Your task to perform on an android device: What's on my calendar today? Image 0: 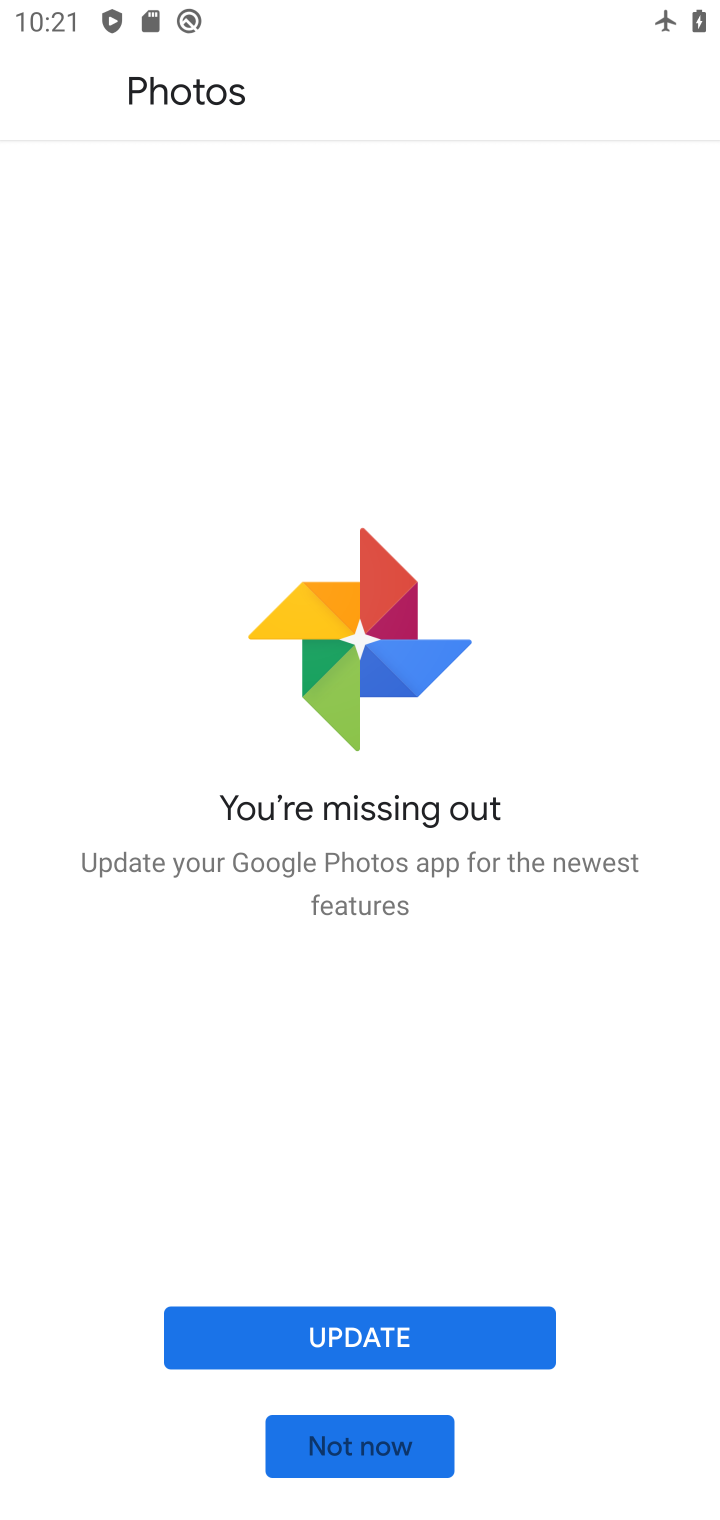
Step 0: press home button
Your task to perform on an android device: What's on my calendar today? Image 1: 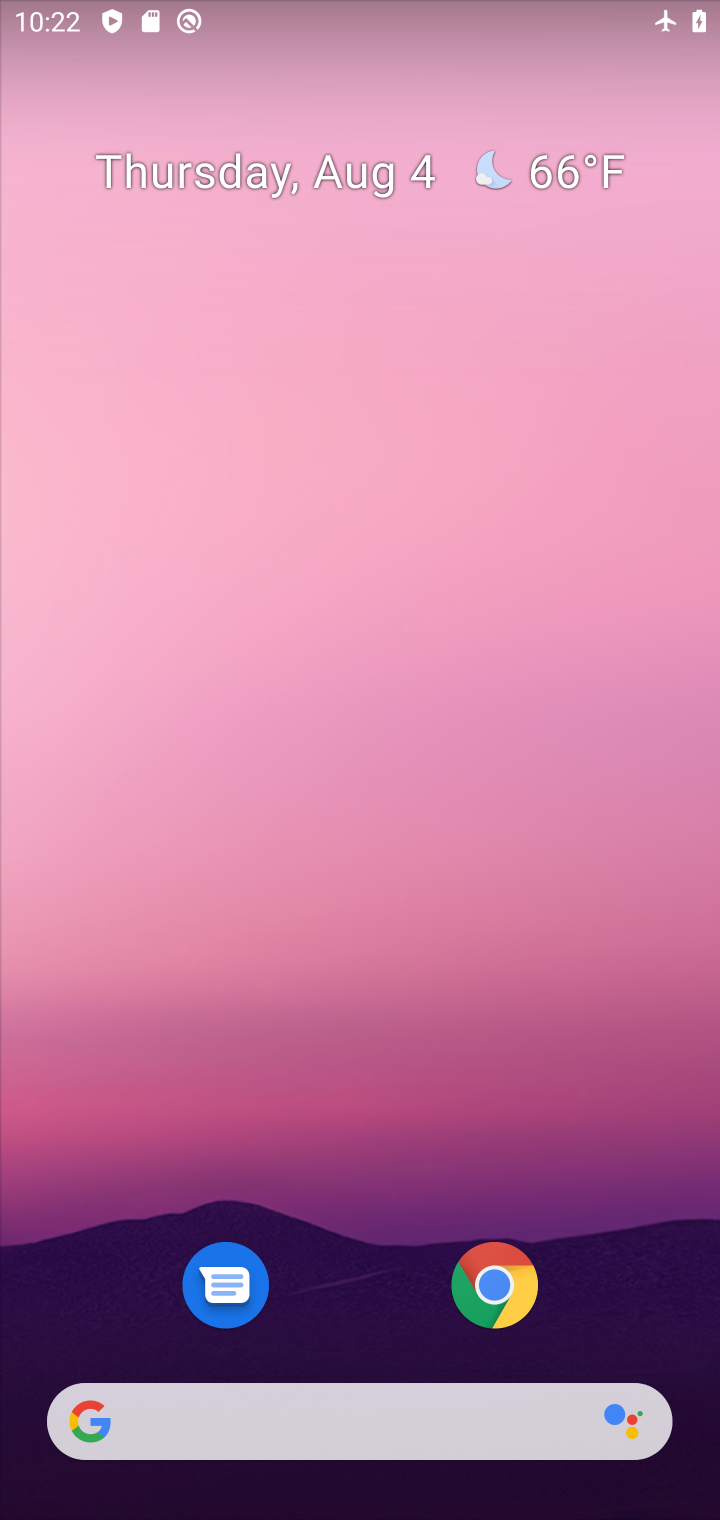
Step 1: drag from (438, 1289) to (462, 68)
Your task to perform on an android device: What's on my calendar today? Image 2: 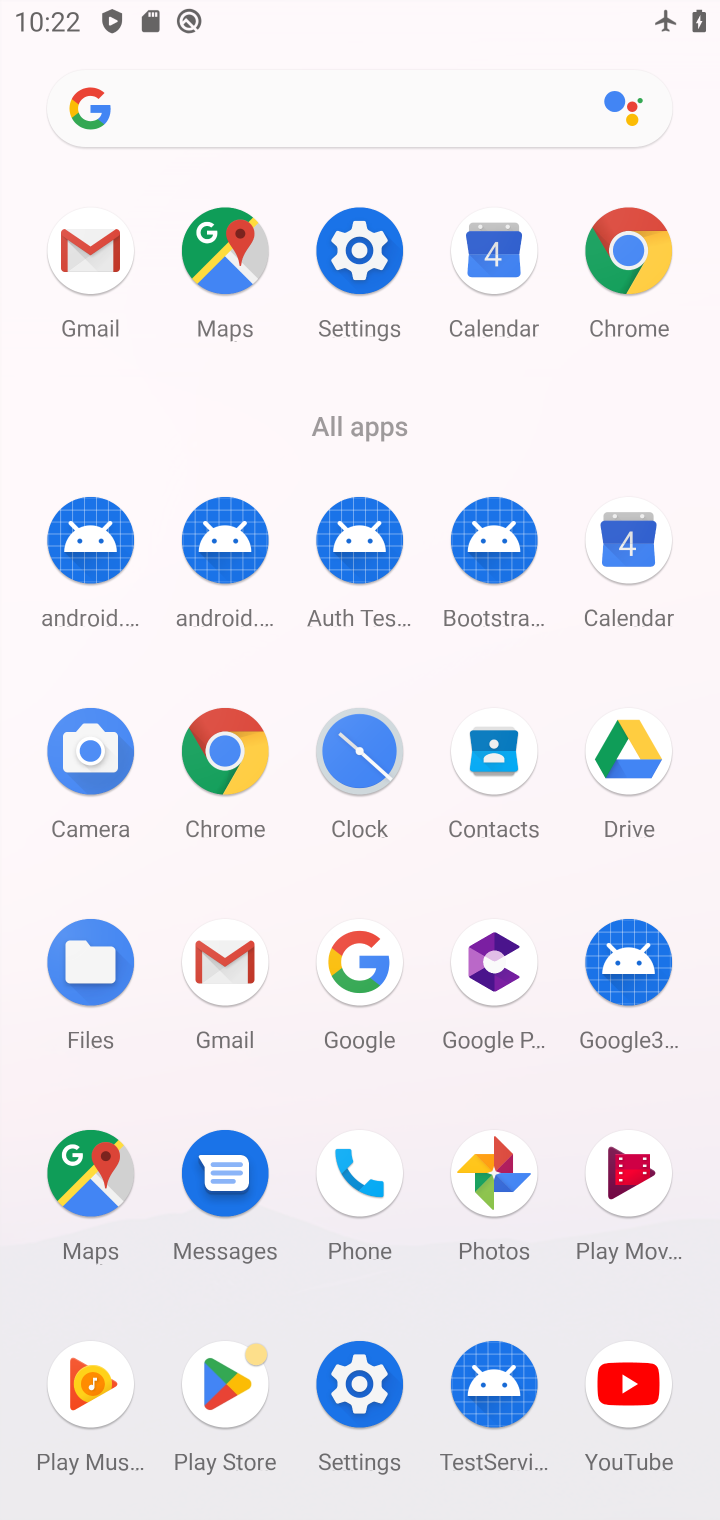
Step 2: click (641, 542)
Your task to perform on an android device: What's on my calendar today? Image 3: 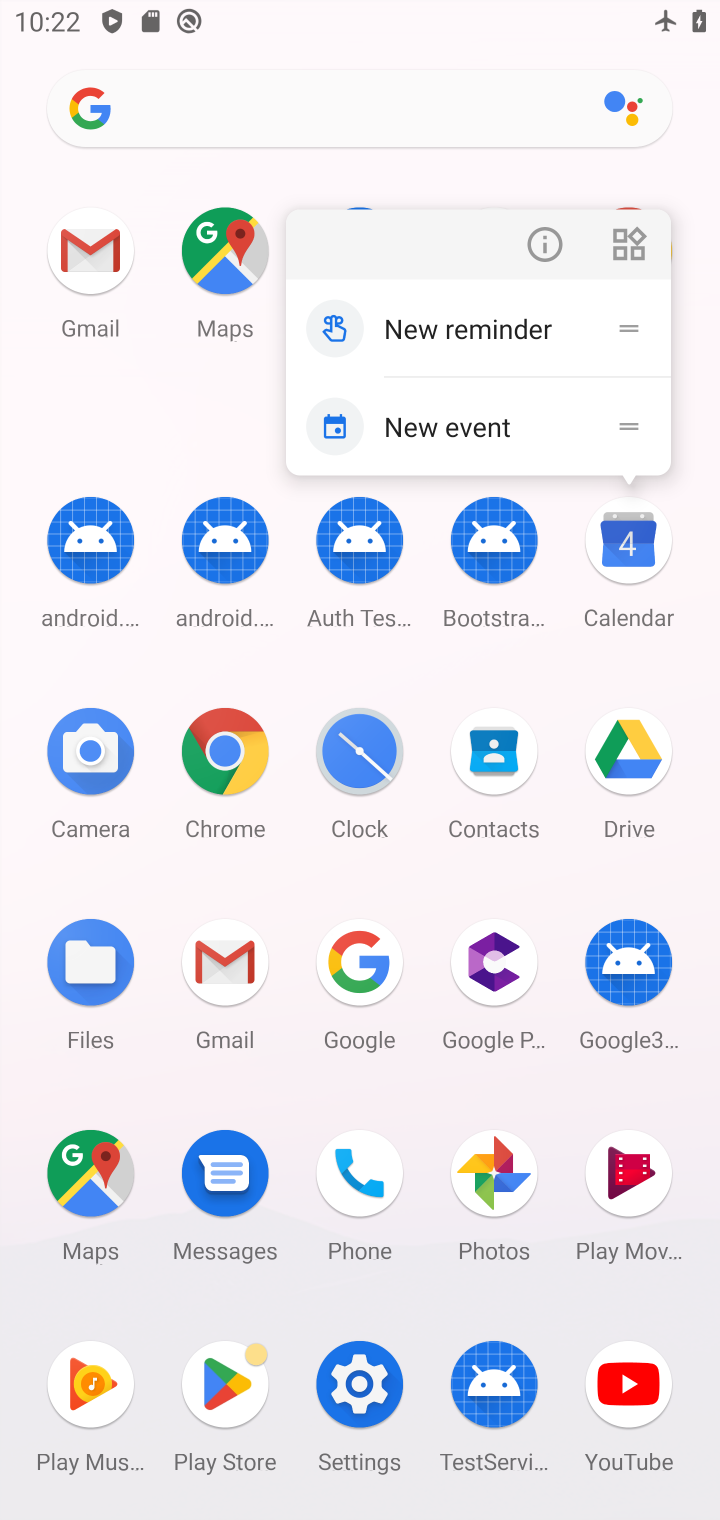
Step 3: click (643, 532)
Your task to perform on an android device: What's on my calendar today? Image 4: 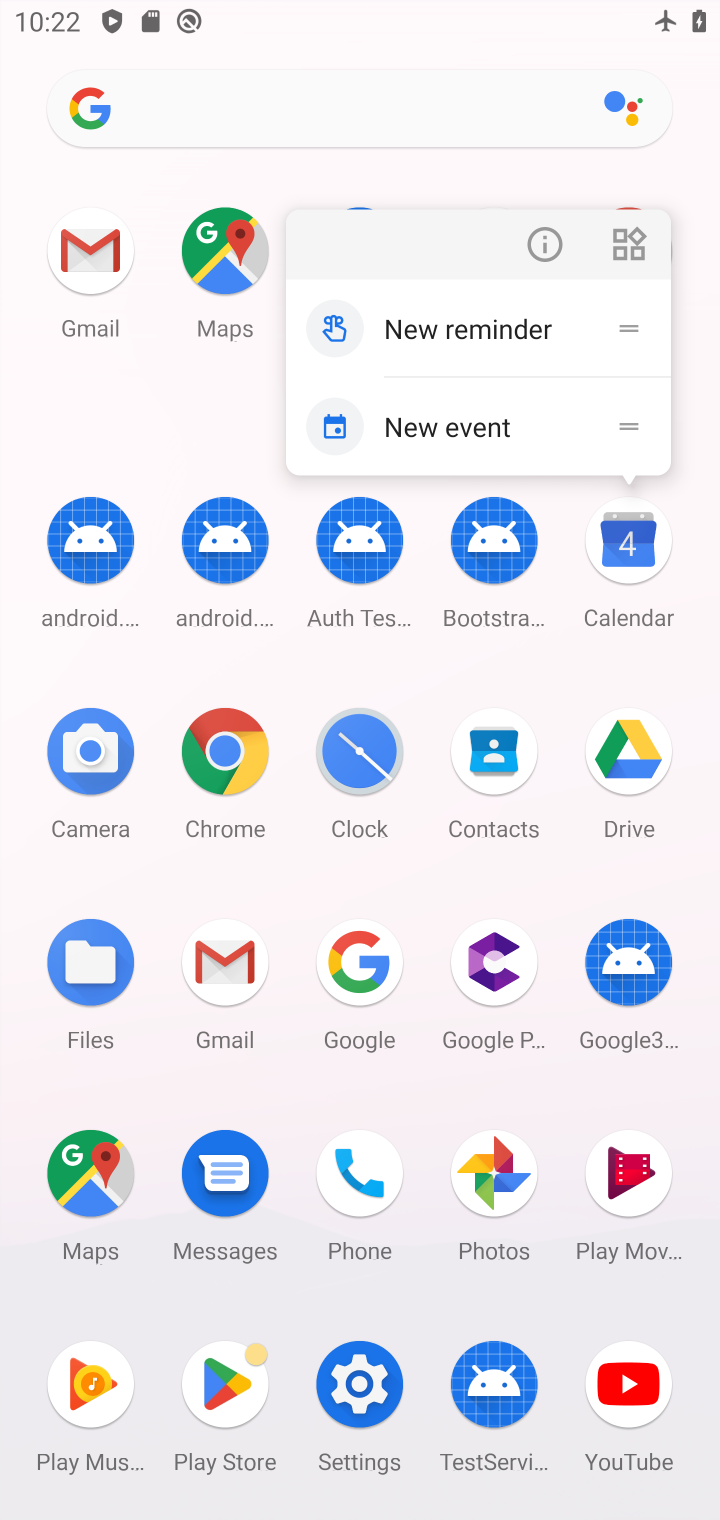
Step 4: click (643, 532)
Your task to perform on an android device: What's on my calendar today? Image 5: 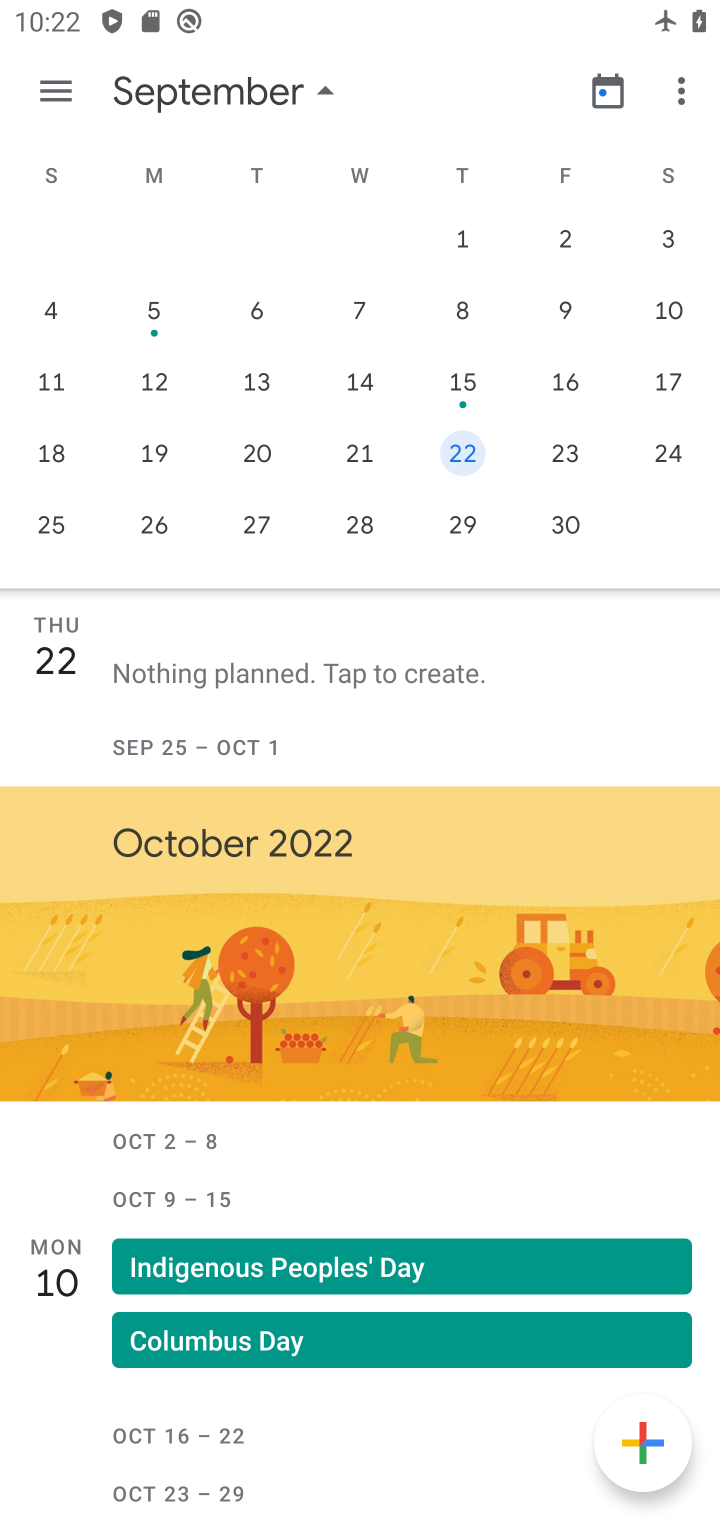
Step 5: drag from (174, 249) to (697, 403)
Your task to perform on an android device: What's on my calendar today? Image 6: 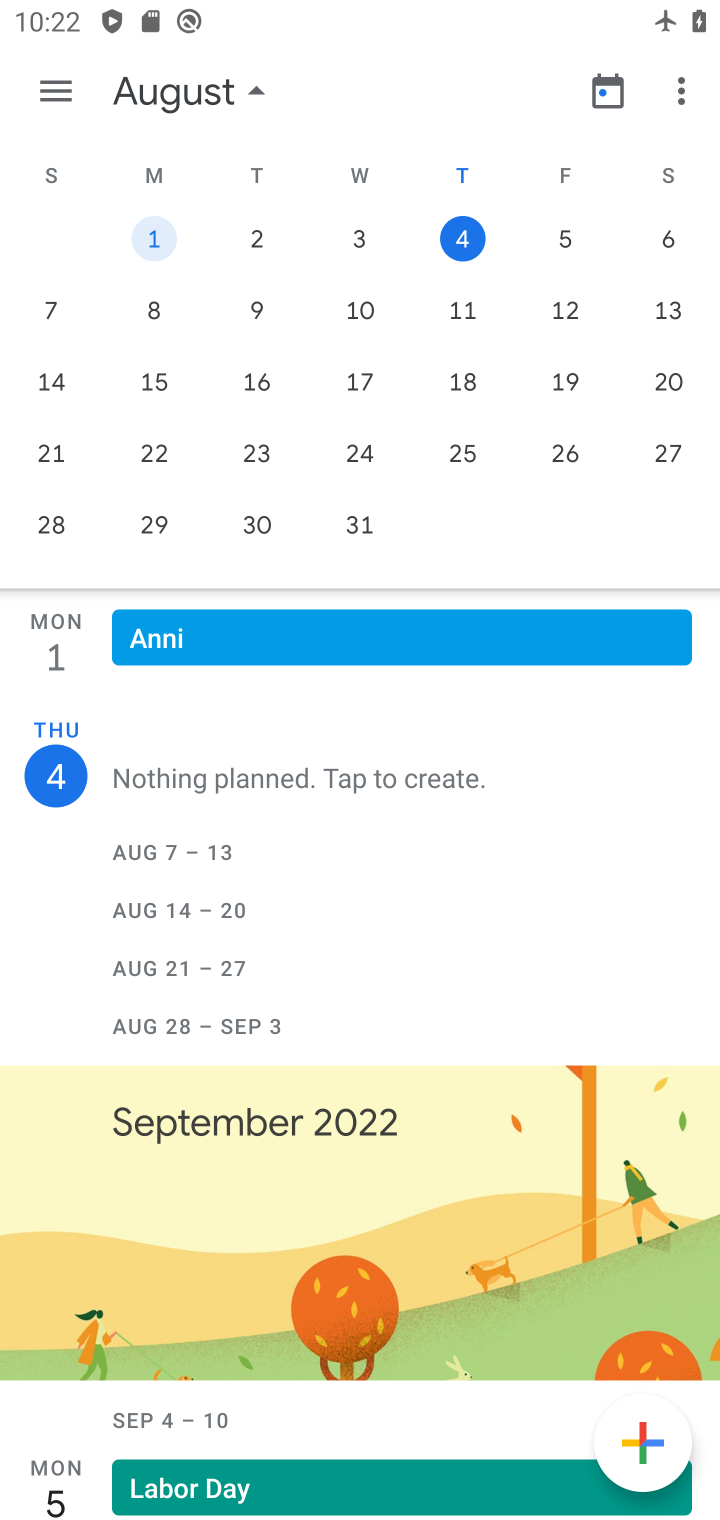
Step 6: click (575, 244)
Your task to perform on an android device: What's on my calendar today? Image 7: 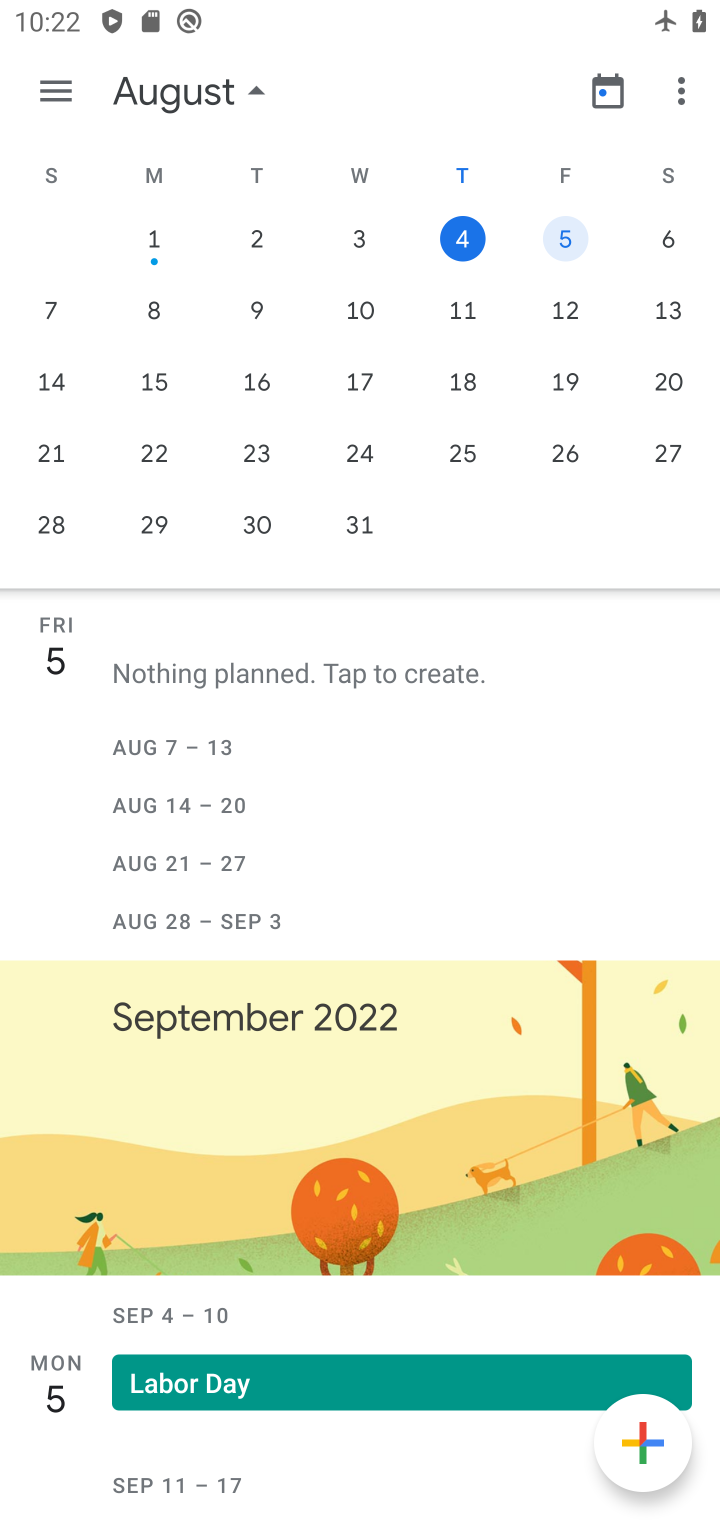
Step 7: task complete